Your task to perform on an android device: toggle data saver in the chrome app Image 0: 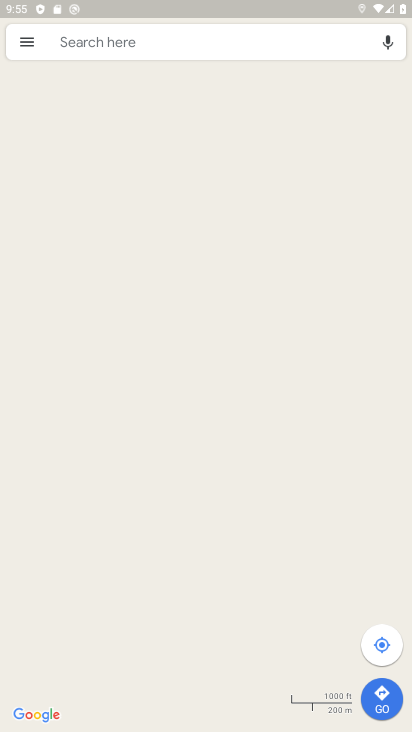
Step 0: press home button
Your task to perform on an android device: toggle data saver in the chrome app Image 1: 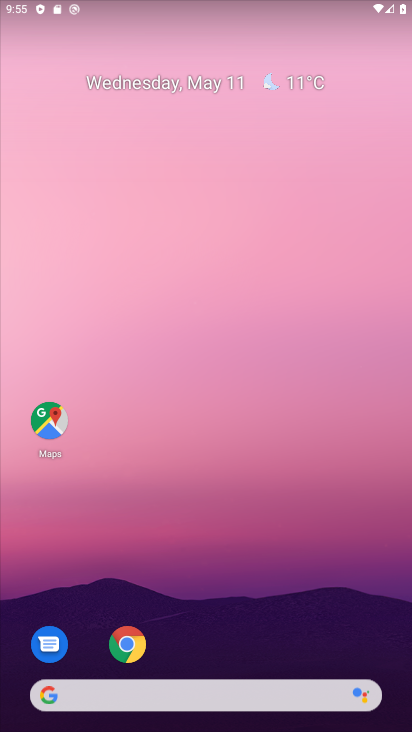
Step 1: click (130, 640)
Your task to perform on an android device: toggle data saver in the chrome app Image 2: 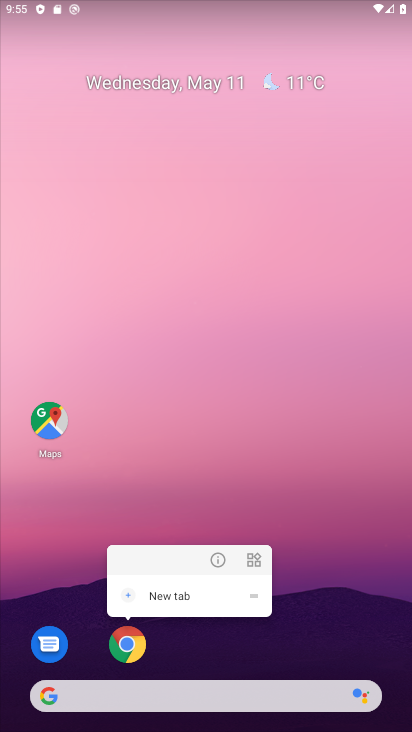
Step 2: click (132, 653)
Your task to perform on an android device: toggle data saver in the chrome app Image 3: 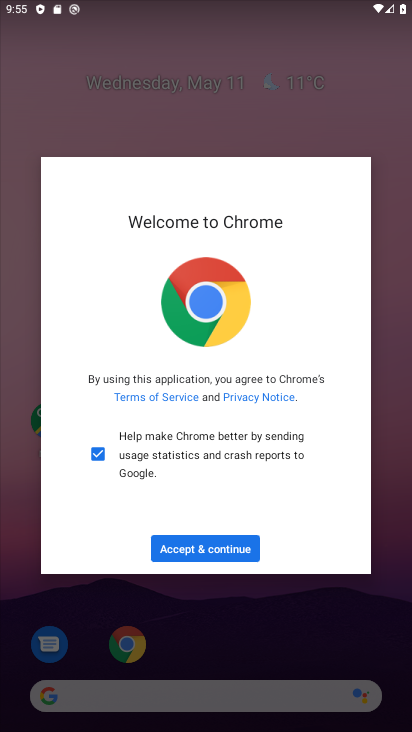
Step 3: click (170, 551)
Your task to perform on an android device: toggle data saver in the chrome app Image 4: 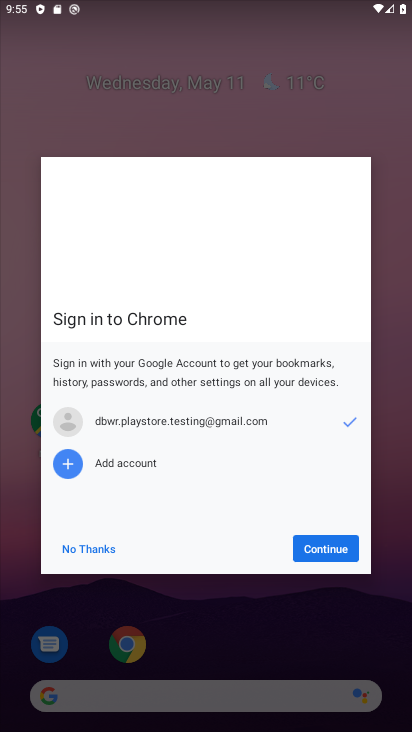
Step 4: click (126, 550)
Your task to perform on an android device: toggle data saver in the chrome app Image 5: 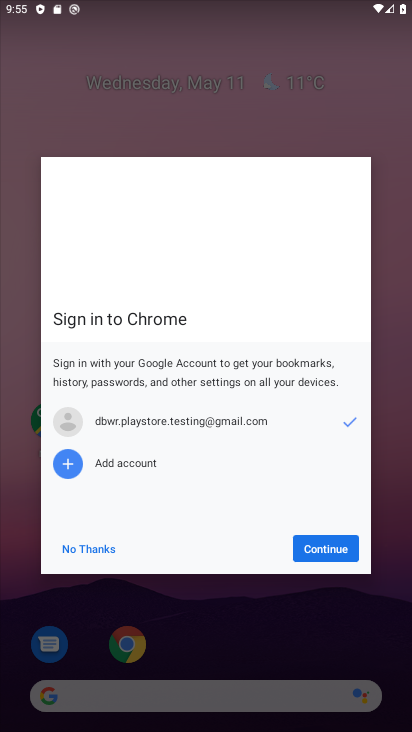
Step 5: click (105, 553)
Your task to perform on an android device: toggle data saver in the chrome app Image 6: 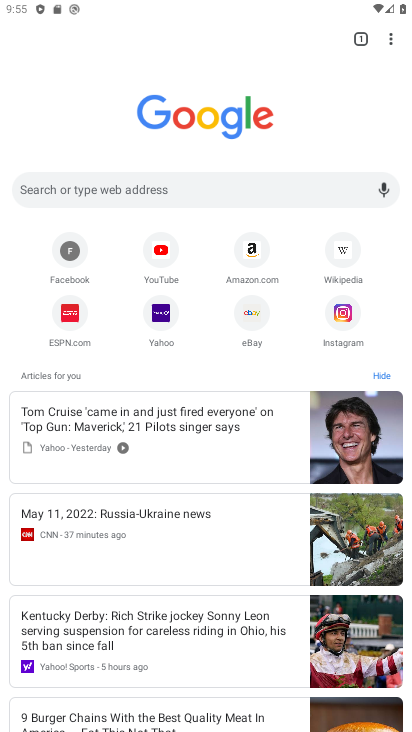
Step 6: click (395, 38)
Your task to perform on an android device: toggle data saver in the chrome app Image 7: 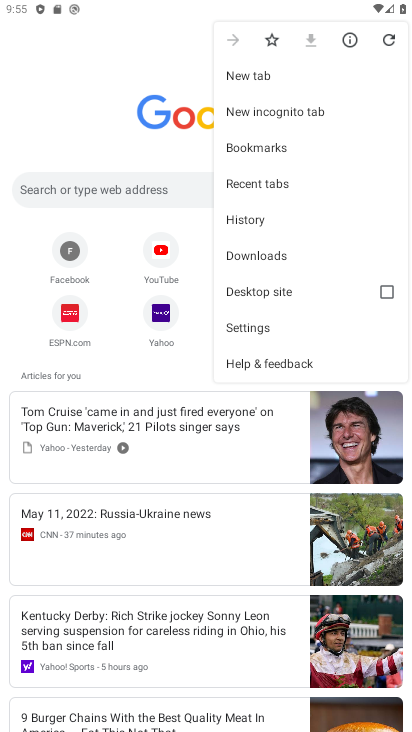
Step 7: click (252, 323)
Your task to perform on an android device: toggle data saver in the chrome app Image 8: 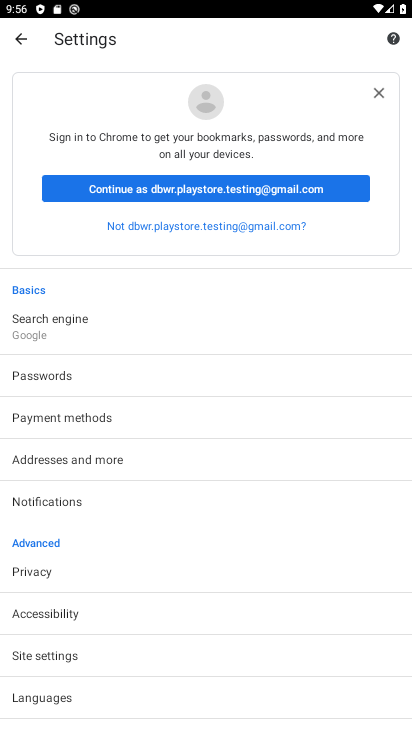
Step 8: drag from (151, 689) to (138, 398)
Your task to perform on an android device: toggle data saver in the chrome app Image 9: 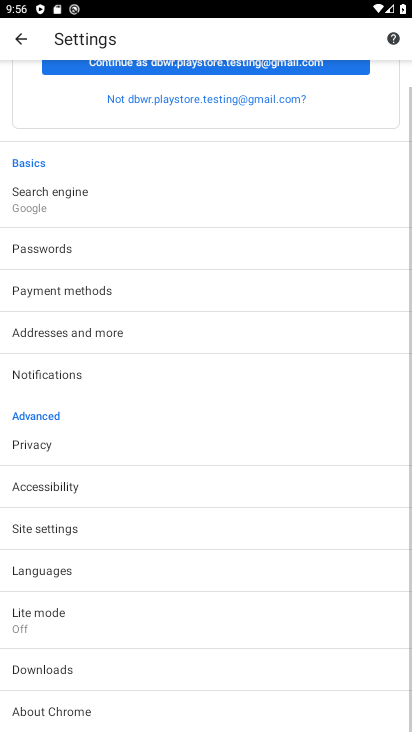
Step 9: click (57, 620)
Your task to perform on an android device: toggle data saver in the chrome app Image 10: 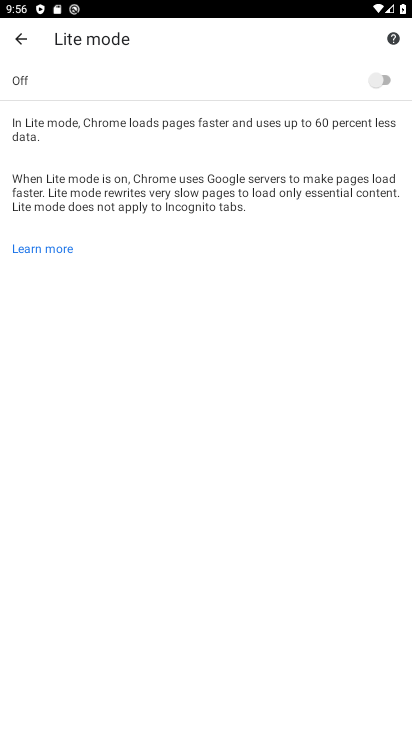
Step 10: click (385, 76)
Your task to perform on an android device: toggle data saver in the chrome app Image 11: 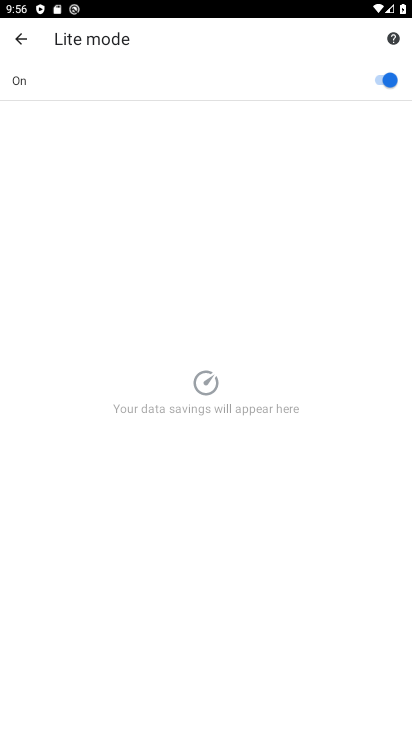
Step 11: task complete